Your task to perform on an android device: add a label to a message in the gmail app Image 0: 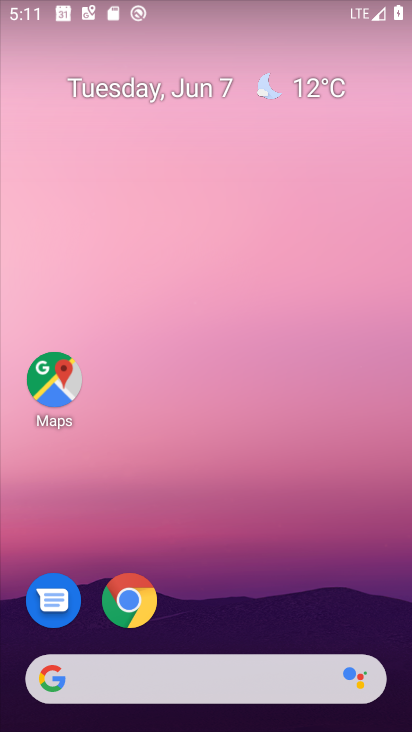
Step 0: drag from (292, 518) to (330, 32)
Your task to perform on an android device: add a label to a message in the gmail app Image 1: 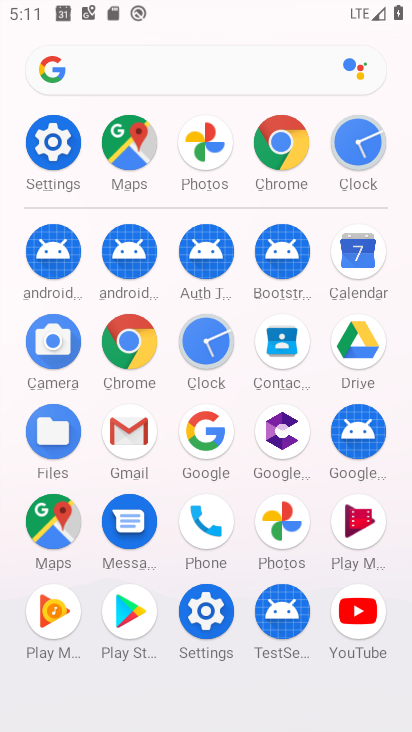
Step 1: click (144, 429)
Your task to perform on an android device: add a label to a message in the gmail app Image 2: 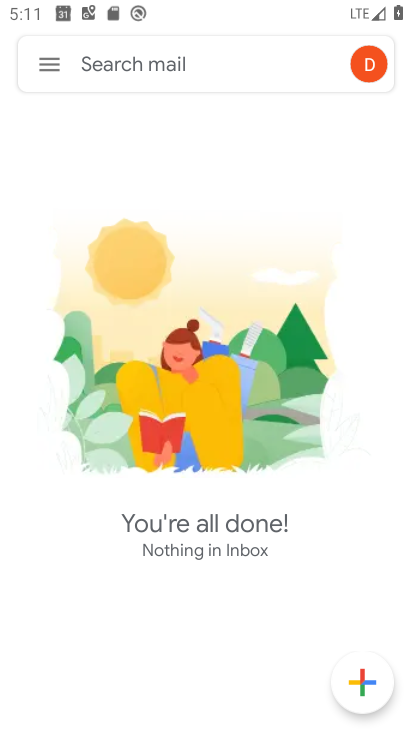
Step 2: click (59, 65)
Your task to perform on an android device: add a label to a message in the gmail app Image 3: 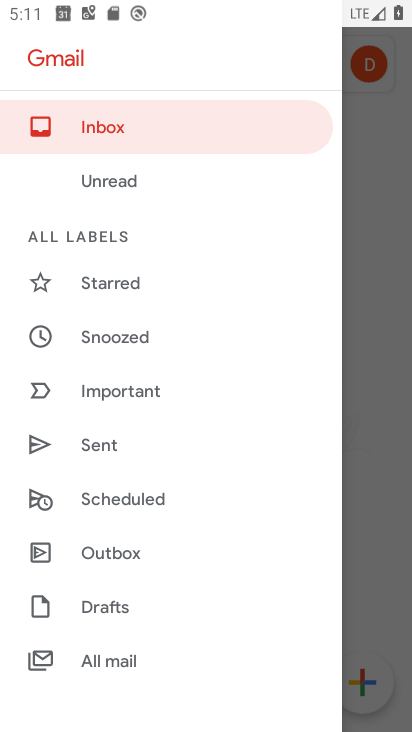
Step 3: click (89, 654)
Your task to perform on an android device: add a label to a message in the gmail app Image 4: 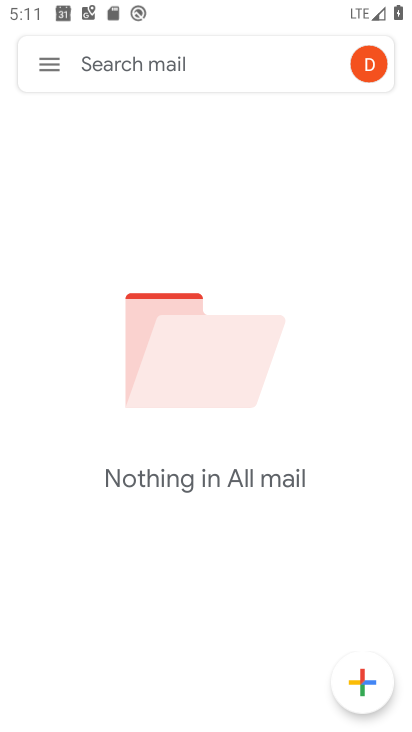
Step 4: task complete